Your task to perform on an android device: turn off improve location accuracy Image 0: 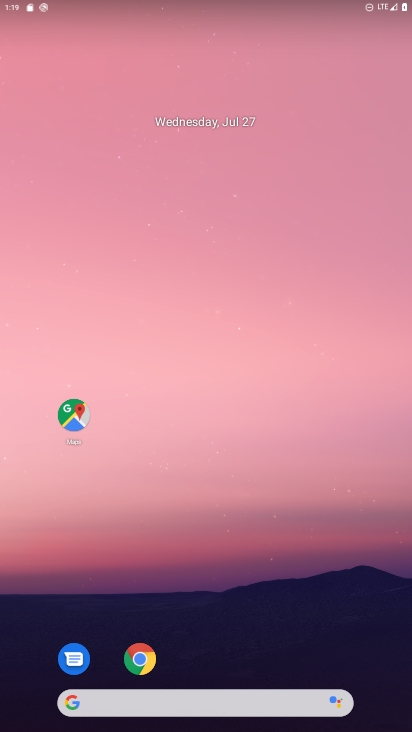
Step 0: drag from (198, 667) to (229, 215)
Your task to perform on an android device: turn off improve location accuracy Image 1: 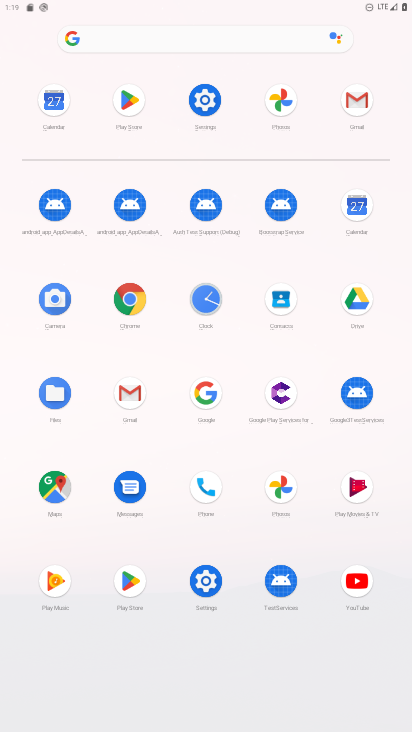
Step 1: click (199, 596)
Your task to perform on an android device: turn off improve location accuracy Image 2: 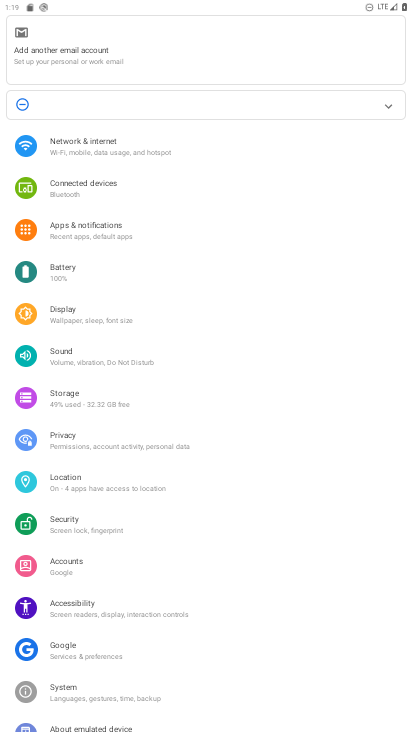
Step 2: click (105, 479)
Your task to perform on an android device: turn off improve location accuracy Image 3: 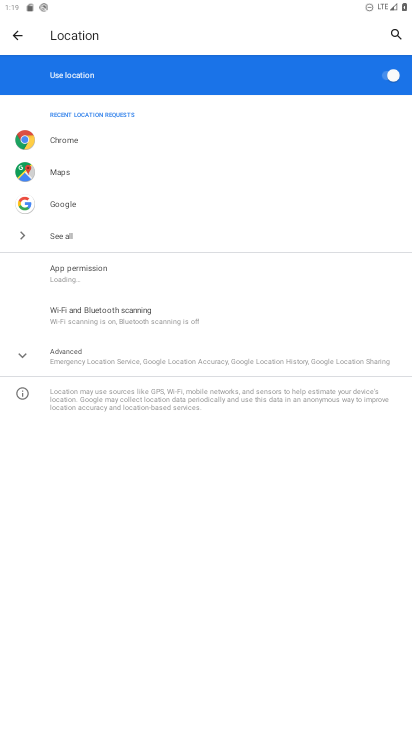
Step 3: click (65, 360)
Your task to perform on an android device: turn off improve location accuracy Image 4: 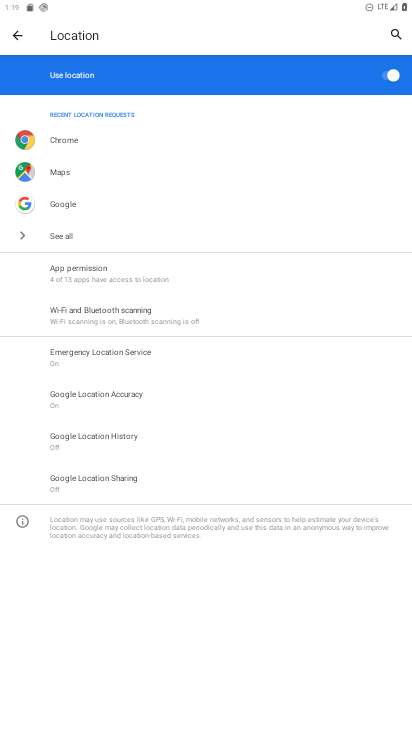
Step 4: click (117, 401)
Your task to perform on an android device: turn off improve location accuracy Image 5: 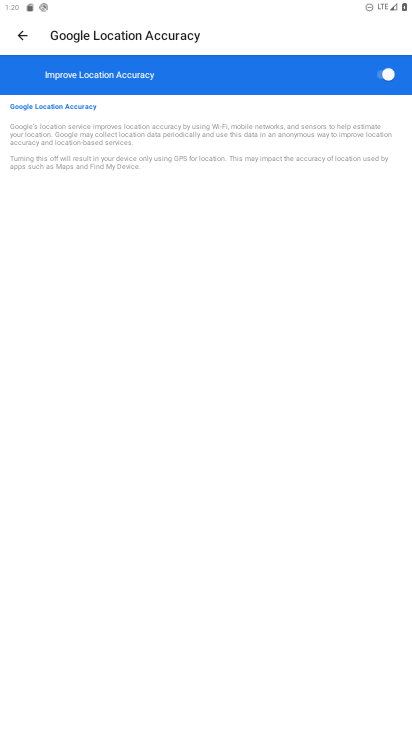
Step 5: click (387, 81)
Your task to perform on an android device: turn off improve location accuracy Image 6: 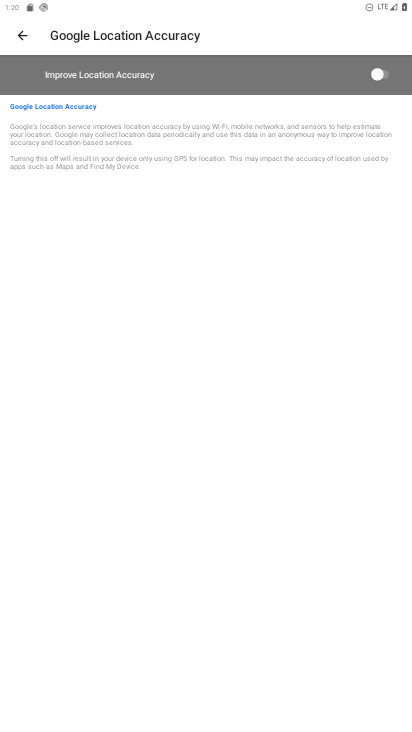
Step 6: task complete